Your task to perform on an android device: Go to Google maps Image 0: 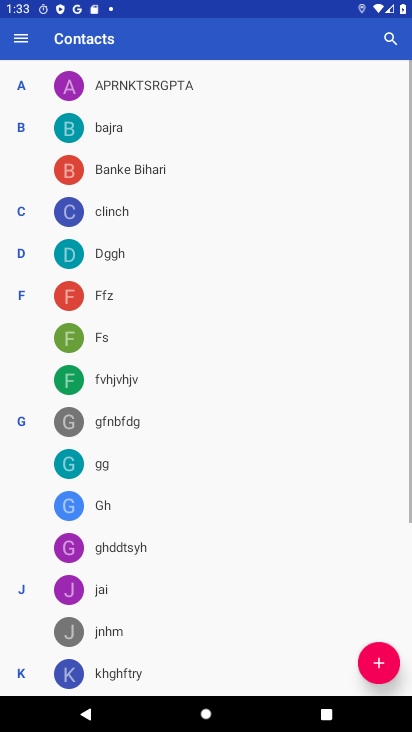
Step 0: drag from (169, 537) to (275, 18)
Your task to perform on an android device: Go to Google maps Image 1: 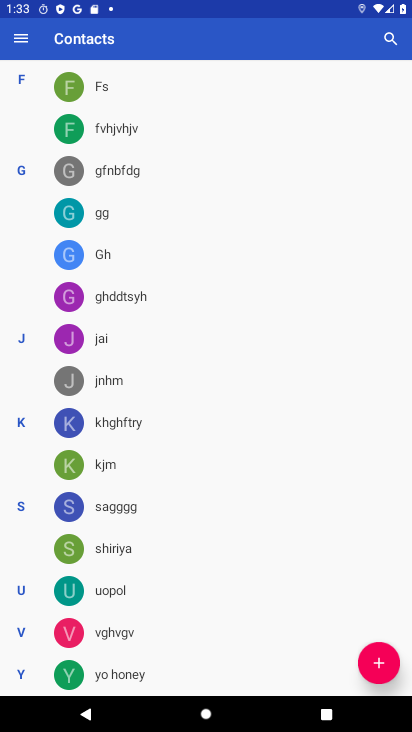
Step 1: press home button
Your task to perform on an android device: Go to Google maps Image 2: 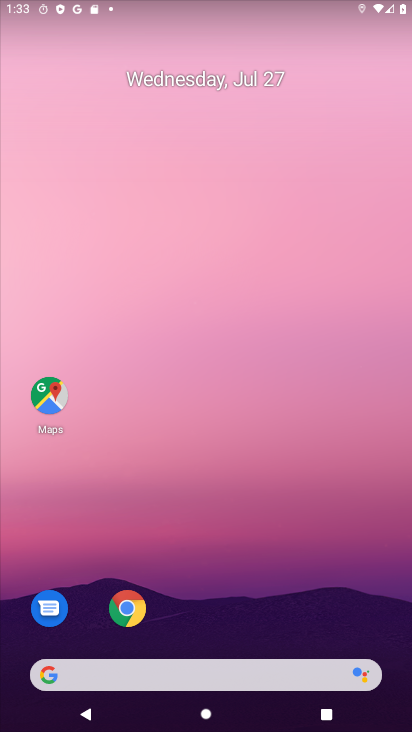
Step 2: click (56, 399)
Your task to perform on an android device: Go to Google maps Image 3: 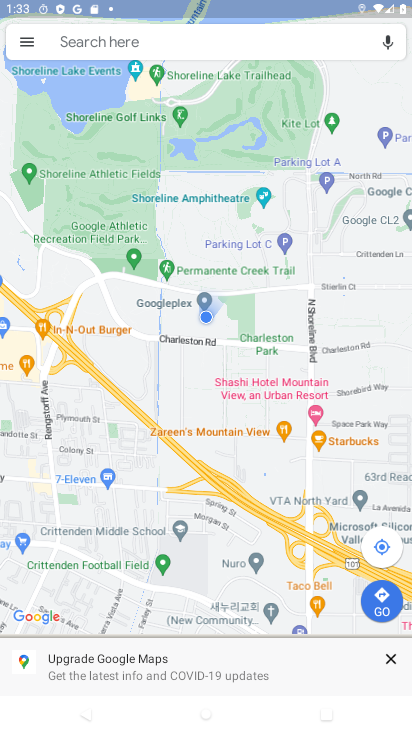
Step 3: task complete